Your task to perform on an android device: show emergency info Image 0: 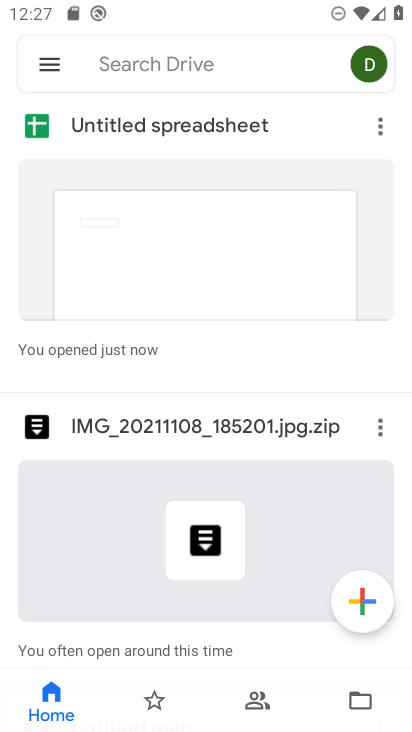
Step 0: press home button
Your task to perform on an android device: show emergency info Image 1: 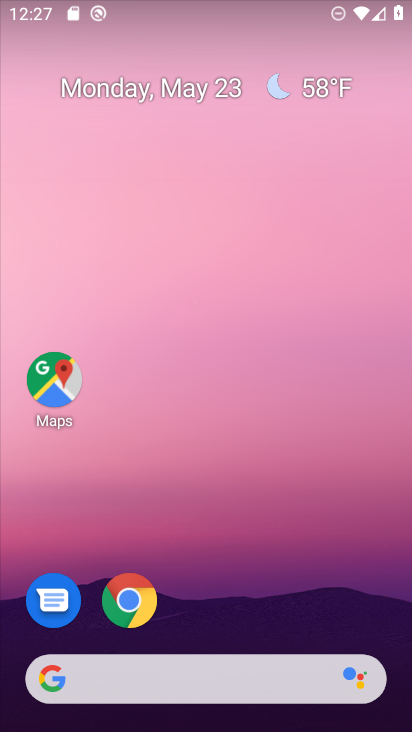
Step 1: drag from (308, 406) to (325, 56)
Your task to perform on an android device: show emergency info Image 2: 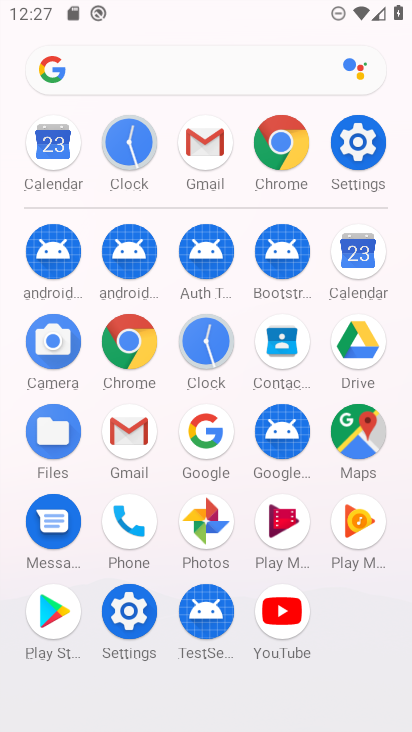
Step 2: click (377, 127)
Your task to perform on an android device: show emergency info Image 3: 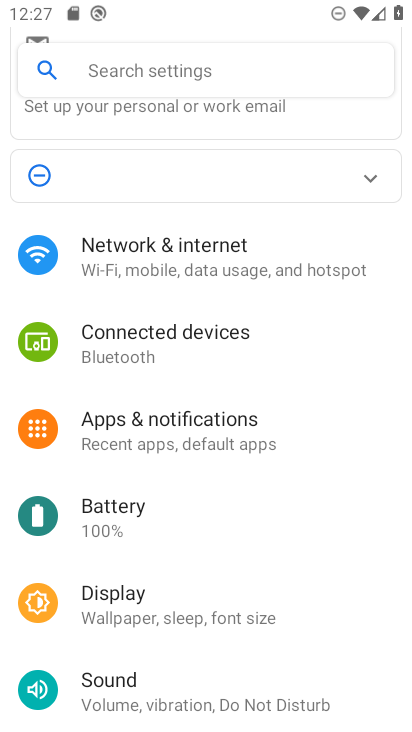
Step 3: drag from (264, 611) to (224, 208)
Your task to perform on an android device: show emergency info Image 4: 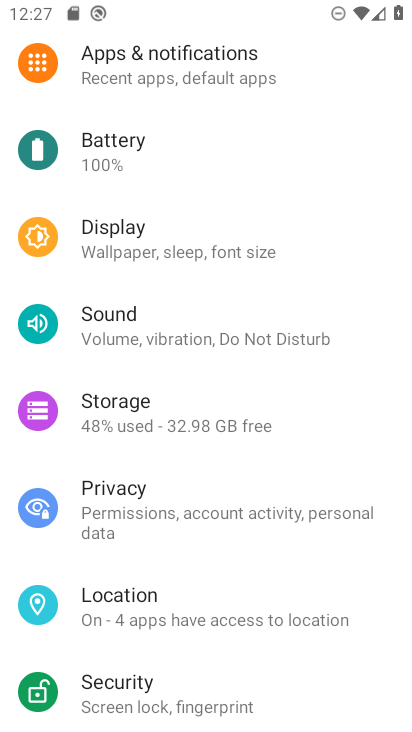
Step 4: drag from (274, 569) to (260, 213)
Your task to perform on an android device: show emergency info Image 5: 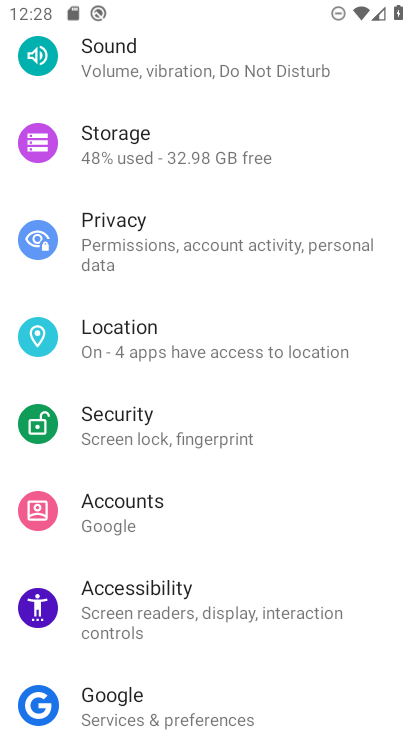
Step 5: drag from (231, 621) to (247, 368)
Your task to perform on an android device: show emergency info Image 6: 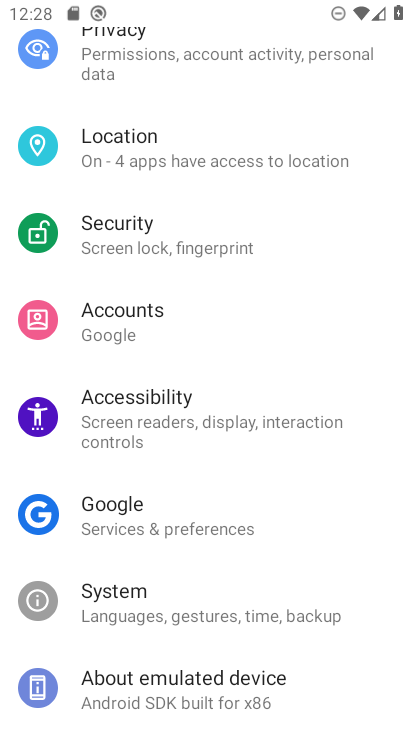
Step 6: drag from (245, 566) to (254, 273)
Your task to perform on an android device: show emergency info Image 7: 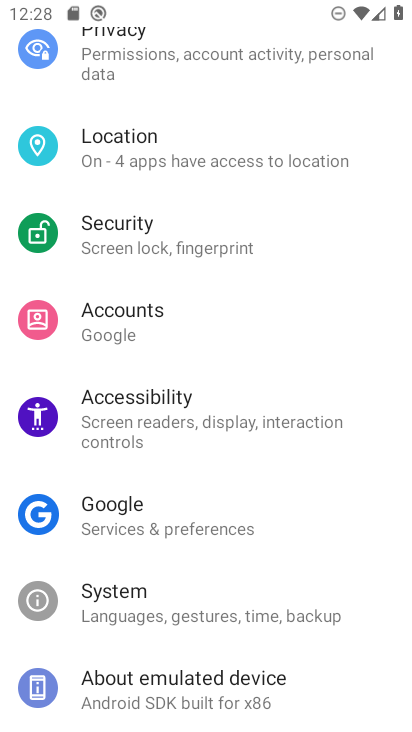
Step 7: click (149, 589)
Your task to perform on an android device: show emergency info Image 8: 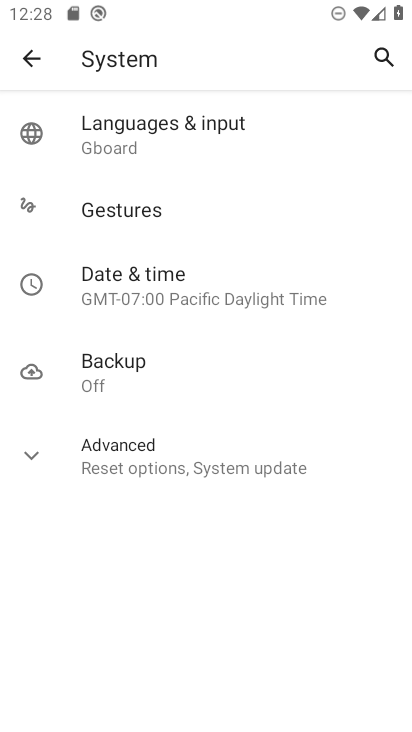
Step 8: click (24, 66)
Your task to perform on an android device: show emergency info Image 9: 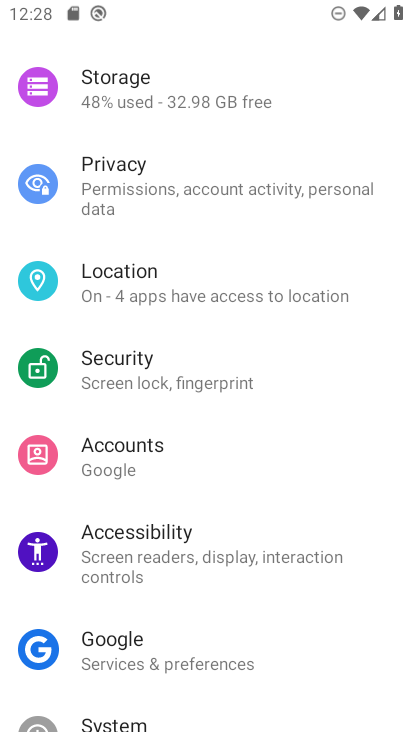
Step 9: drag from (206, 514) to (153, 111)
Your task to perform on an android device: show emergency info Image 10: 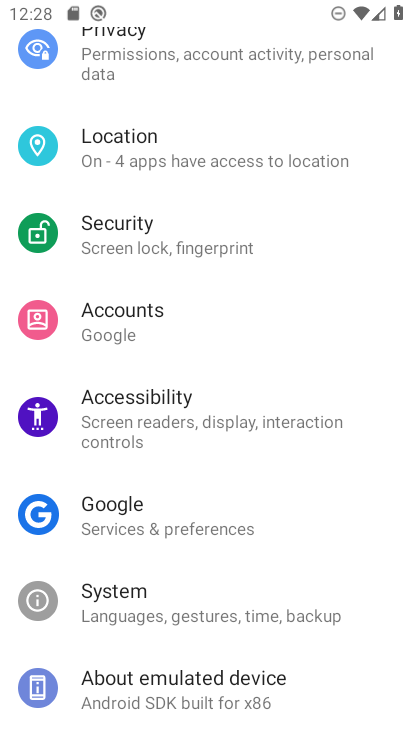
Step 10: drag from (151, 489) to (166, 152)
Your task to perform on an android device: show emergency info Image 11: 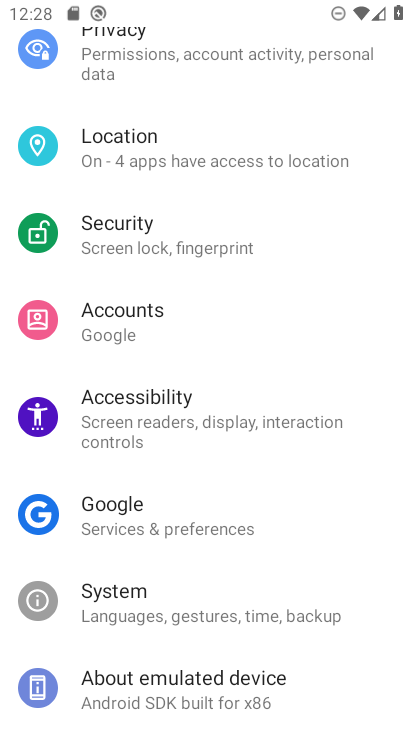
Step 11: click (182, 668)
Your task to perform on an android device: show emergency info Image 12: 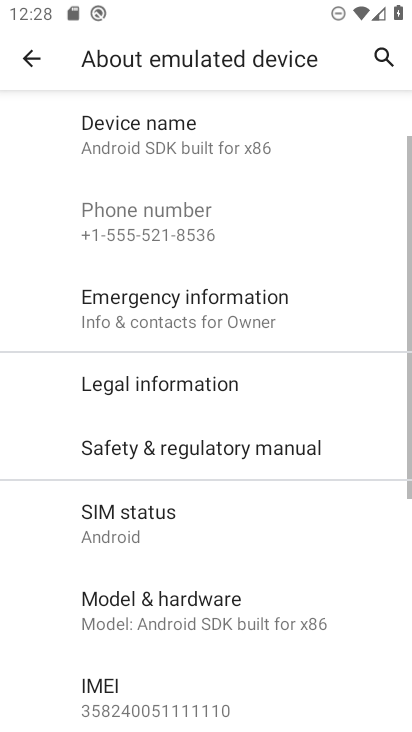
Step 12: click (200, 315)
Your task to perform on an android device: show emergency info Image 13: 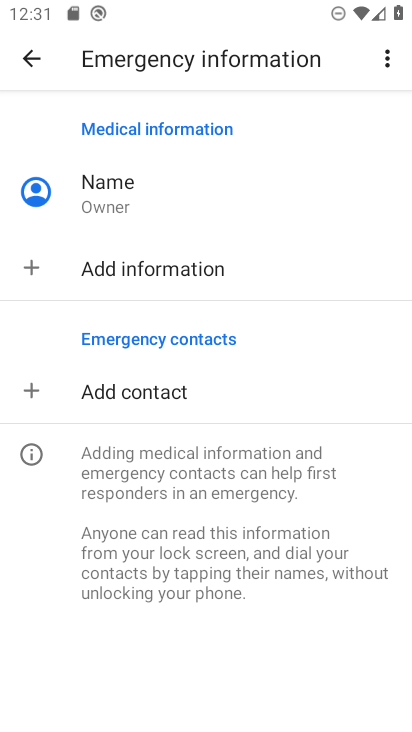
Step 13: task complete